Your task to perform on an android device: turn on wifi Image 0: 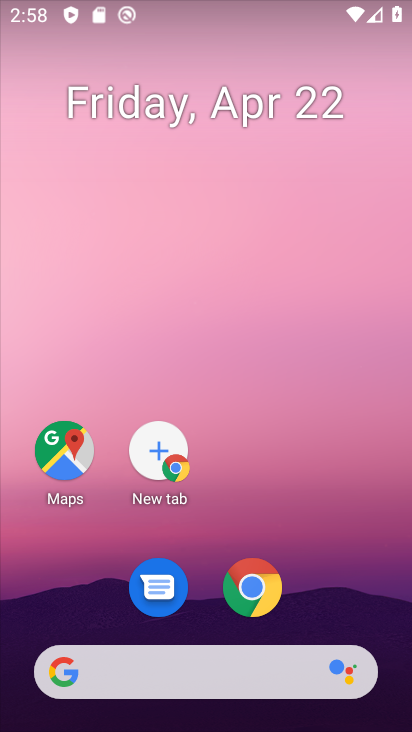
Step 0: drag from (258, 13) to (237, 645)
Your task to perform on an android device: turn on wifi Image 1: 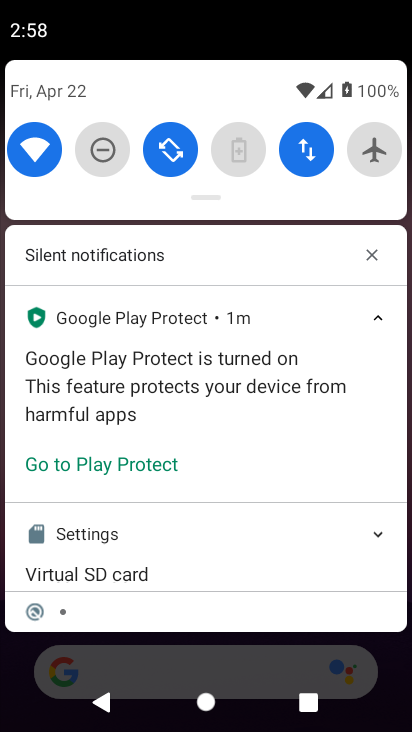
Step 1: task complete